Your task to perform on an android device: Do I have any events tomorrow? Image 0: 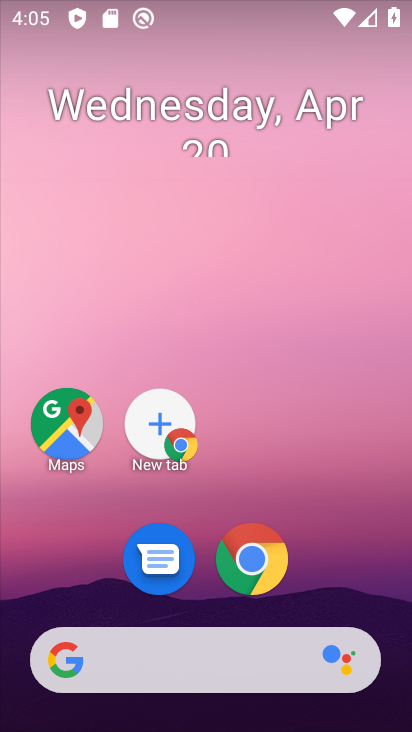
Step 0: click (320, 115)
Your task to perform on an android device: Do I have any events tomorrow? Image 1: 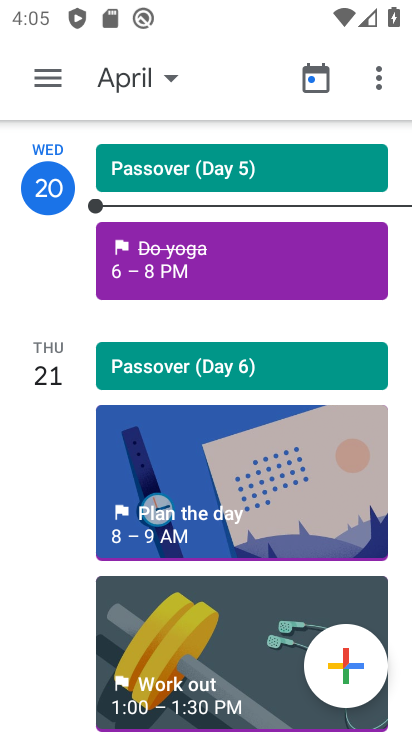
Step 1: press back button
Your task to perform on an android device: Do I have any events tomorrow? Image 2: 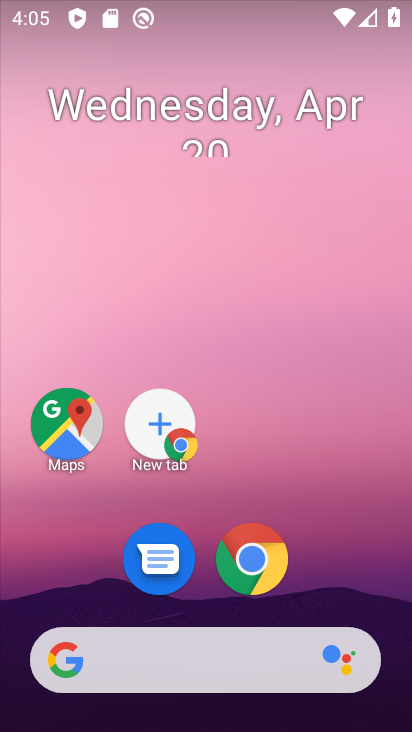
Step 2: drag from (354, 583) to (308, 24)
Your task to perform on an android device: Do I have any events tomorrow? Image 3: 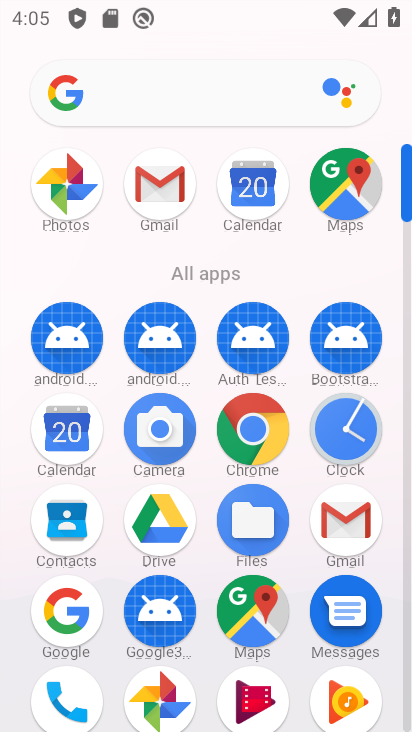
Step 3: click (75, 518)
Your task to perform on an android device: Do I have any events tomorrow? Image 4: 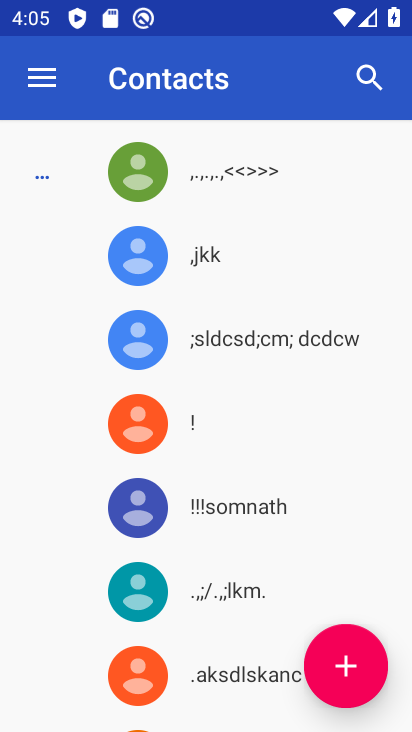
Step 4: press back button
Your task to perform on an android device: Do I have any events tomorrow? Image 5: 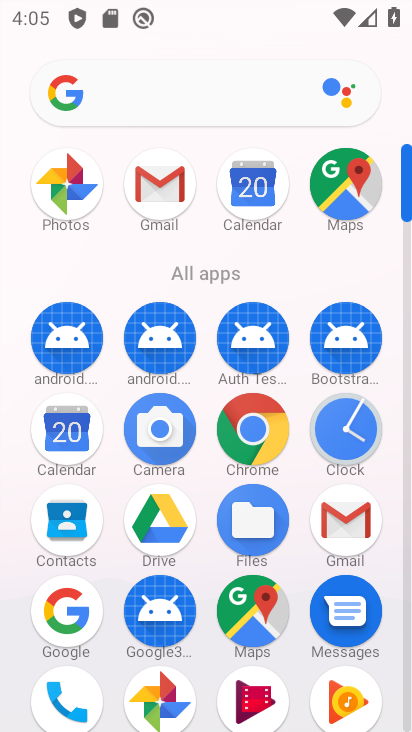
Step 5: click (69, 432)
Your task to perform on an android device: Do I have any events tomorrow? Image 6: 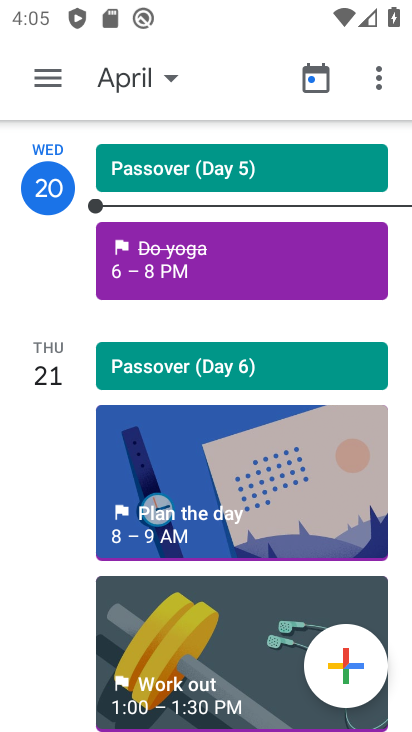
Step 6: click (51, 382)
Your task to perform on an android device: Do I have any events tomorrow? Image 7: 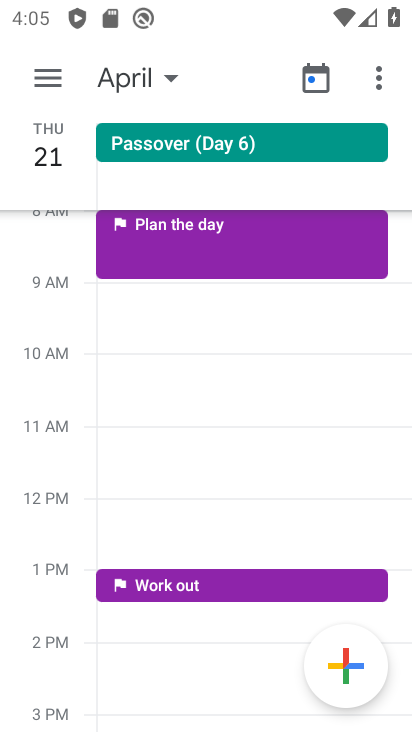
Step 7: task complete